Your task to perform on an android device: move an email to a new category in the gmail app Image 0: 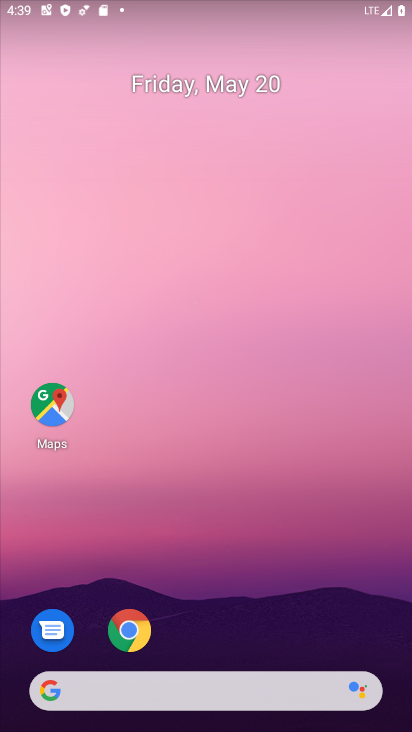
Step 0: drag from (269, 553) to (280, 35)
Your task to perform on an android device: move an email to a new category in the gmail app Image 1: 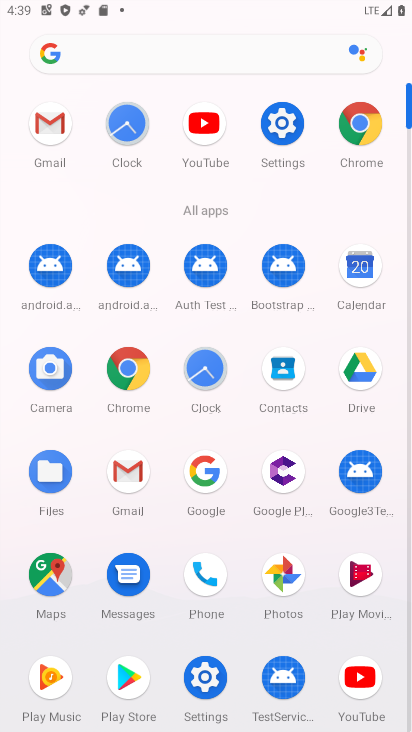
Step 1: click (47, 113)
Your task to perform on an android device: move an email to a new category in the gmail app Image 2: 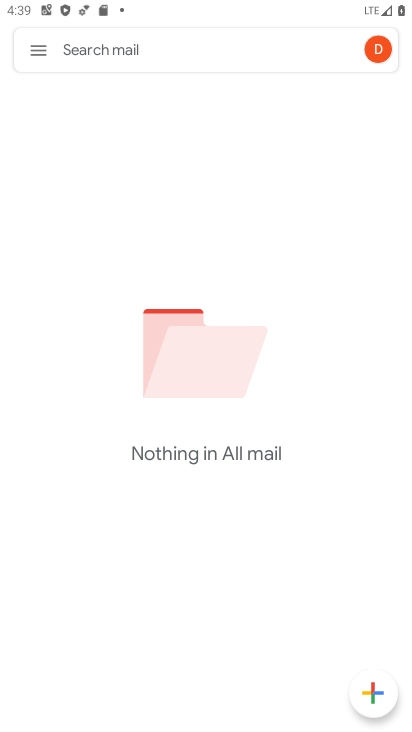
Step 2: task complete